Your task to perform on an android device: Open the calendar app, open the side menu, and click the "Day" option Image 0: 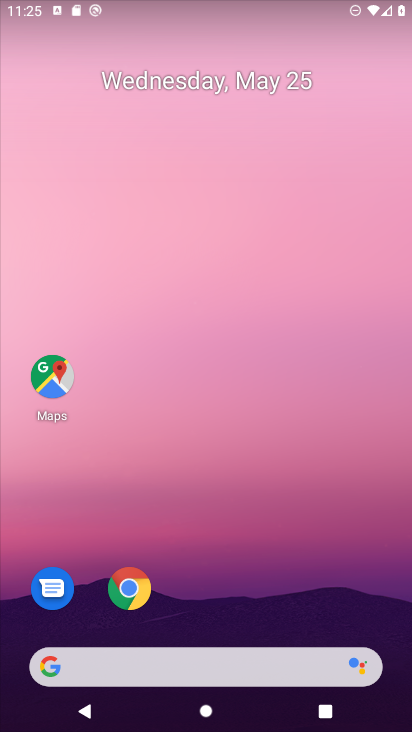
Step 0: drag from (46, 550) to (220, 147)
Your task to perform on an android device: Open the calendar app, open the side menu, and click the "Day" option Image 1: 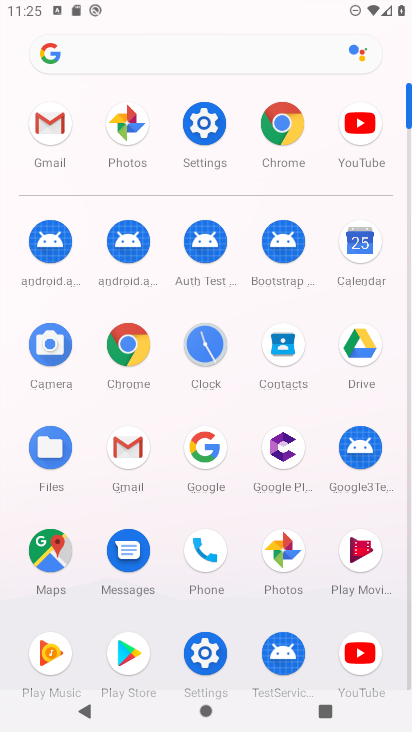
Step 1: click (367, 230)
Your task to perform on an android device: Open the calendar app, open the side menu, and click the "Day" option Image 2: 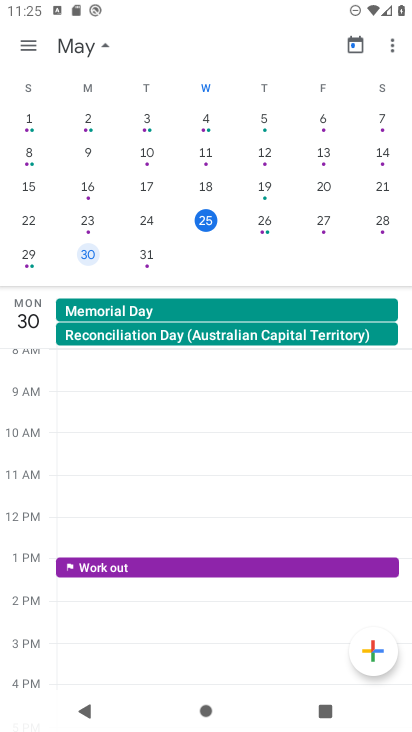
Step 2: click (38, 42)
Your task to perform on an android device: Open the calendar app, open the side menu, and click the "Day" option Image 3: 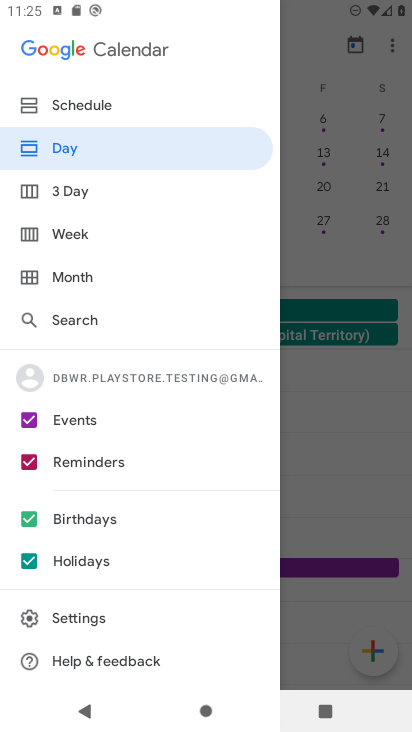
Step 3: click (108, 141)
Your task to perform on an android device: Open the calendar app, open the side menu, and click the "Day" option Image 4: 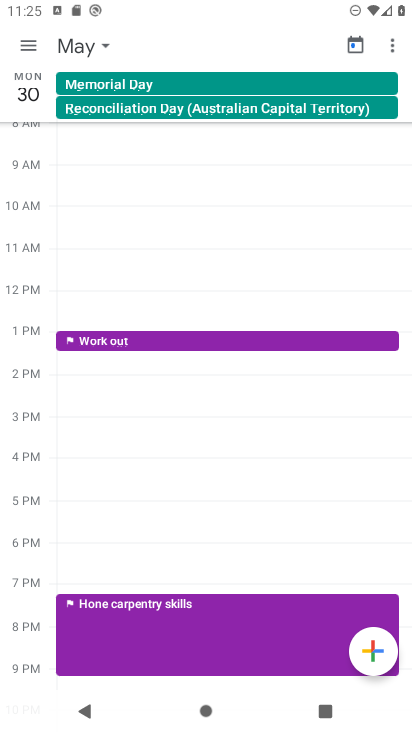
Step 4: task complete